Your task to perform on an android device: Open Chrome and go to the settings page Image 0: 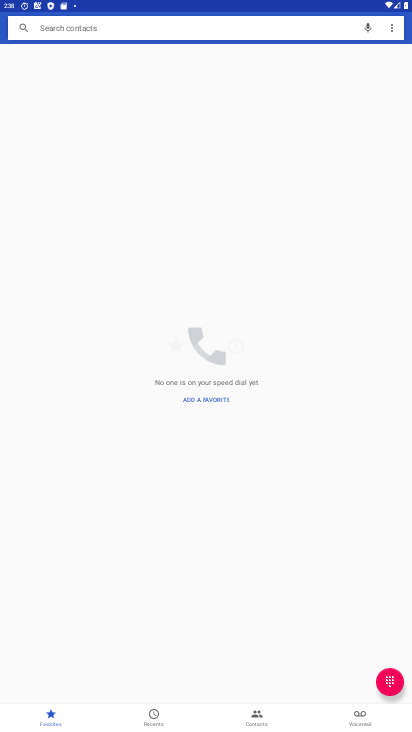
Step 0: press home button
Your task to perform on an android device: Open Chrome and go to the settings page Image 1: 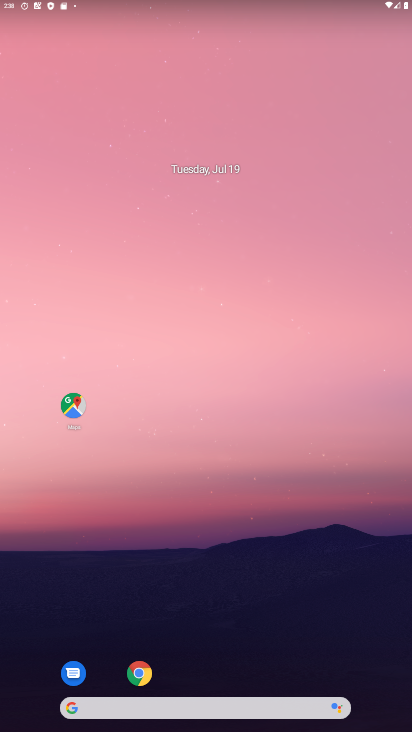
Step 1: click (143, 680)
Your task to perform on an android device: Open Chrome and go to the settings page Image 2: 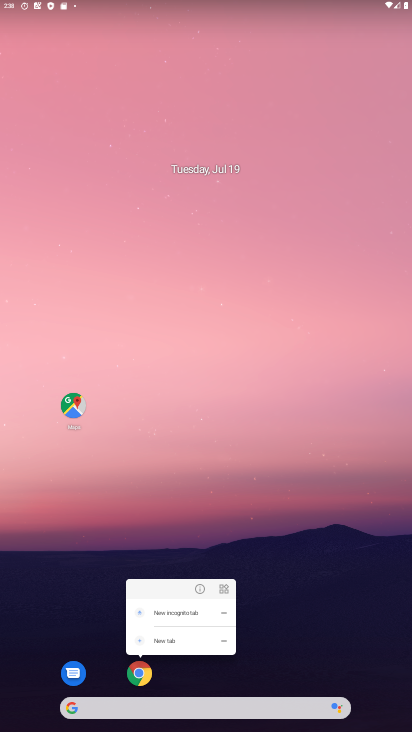
Step 2: click (145, 675)
Your task to perform on an android device: Open Chrome and go to the settings page Image 3: 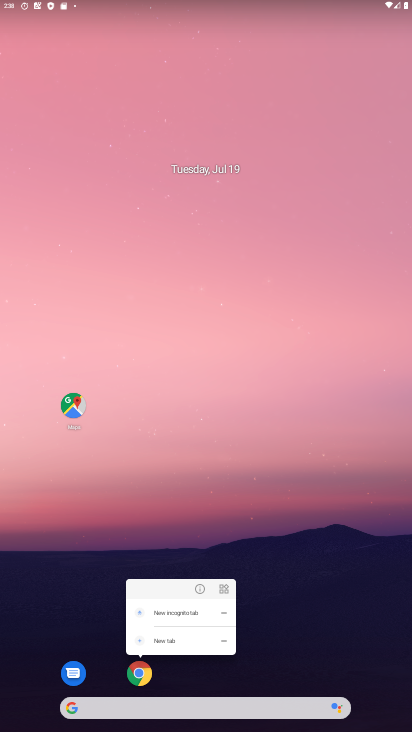
Step 3: click (136, 675)
Your task to perform on an android device: Open Chrome and go to the settings page Image 4: 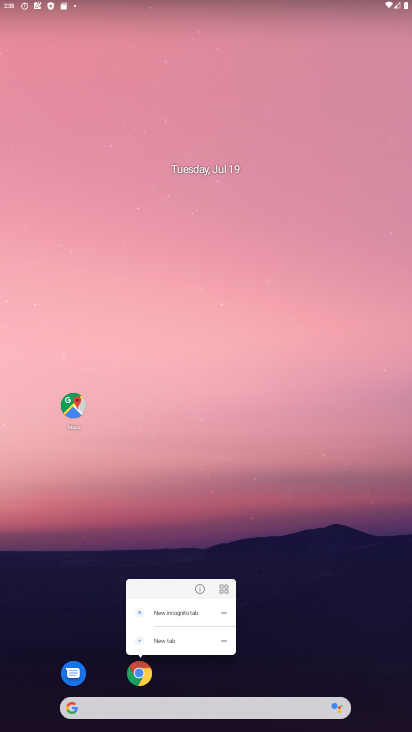
Step 4: click (134, 676)
Your task to perform on an android device: Open Chrome and go to the settings page Image 5: 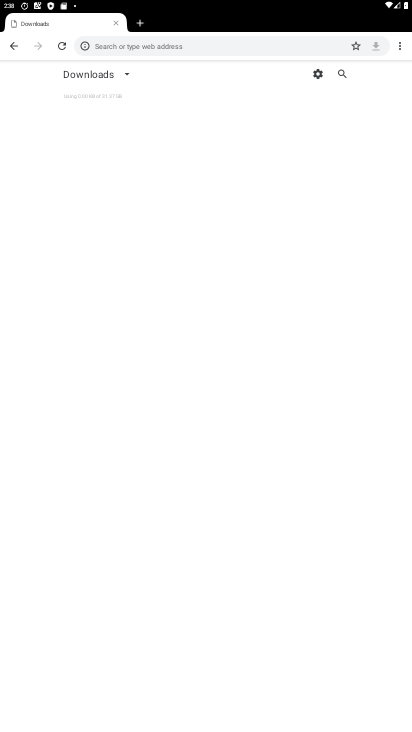
Step 5: click (399, 49)
Your task to perform on an android device: Open Chrome and go to the settings page Image 6: 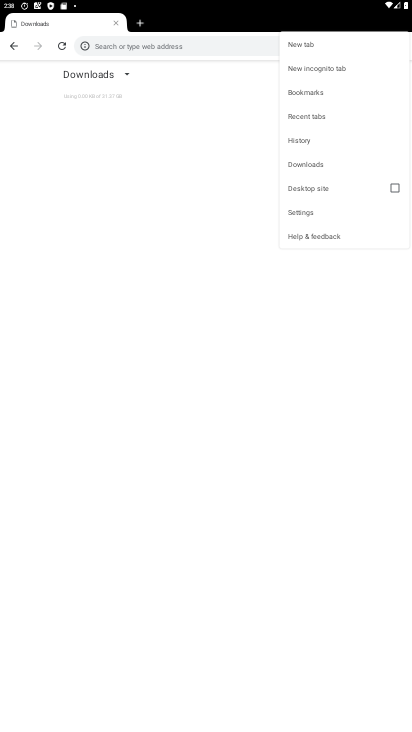
Step 6: click (308, 217)
Your task to perform on an android device: Open Chrome and go to the settings page Image 7: 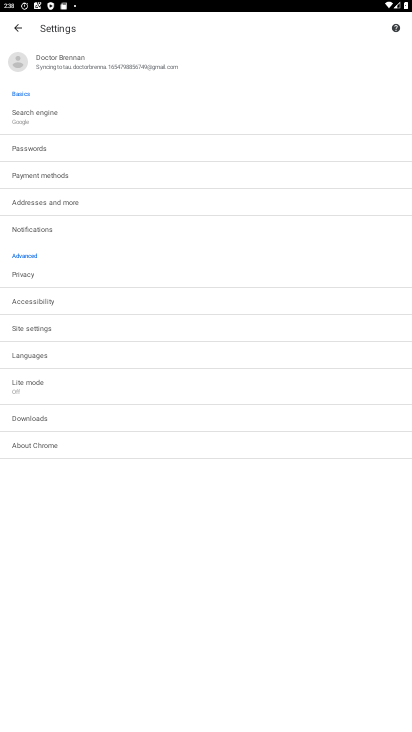
Step 7: task complete